Your task to perform on an android device: Open Amazon Image 0: 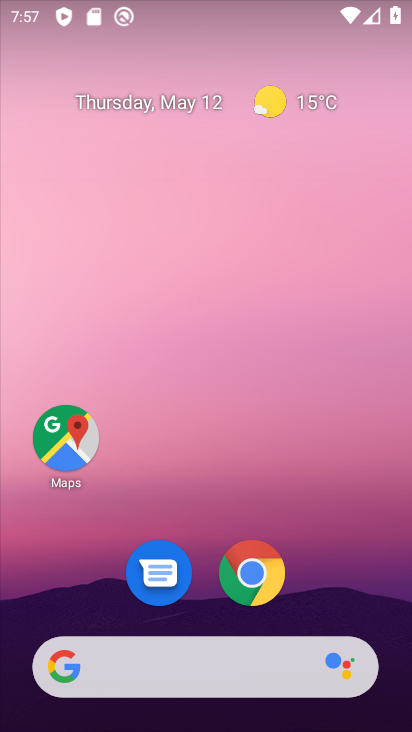
Step 0: click (253, 575)
Your task to perform on an android device: Open Amazon Image 1: 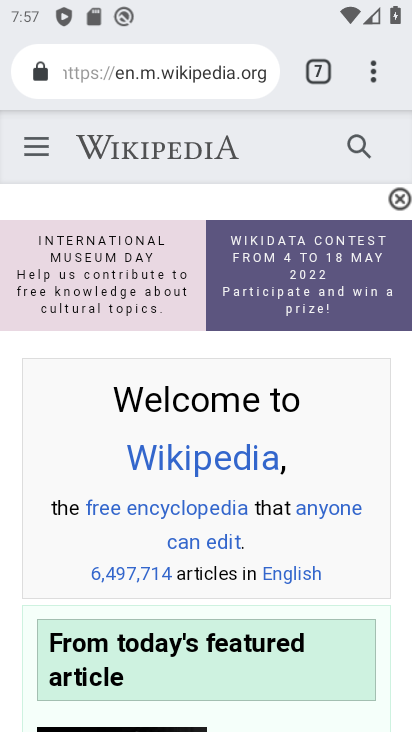
Step 1: click (375, 72)
Your task to perform on an android device: Open Amazon Image 2: 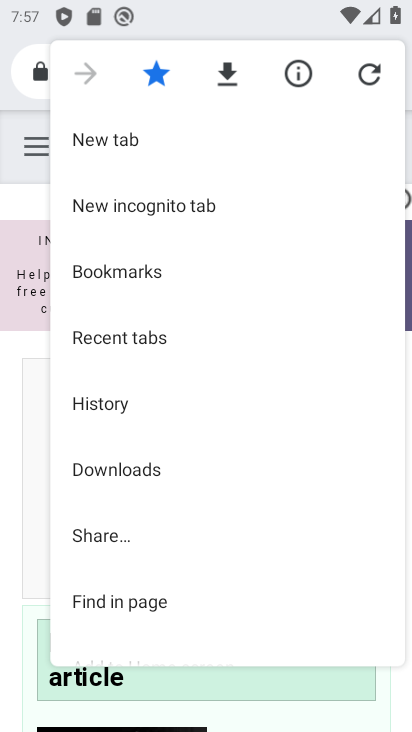
Step 2: click (115, 138)
Your task to perform on an android device: Open Amazon Image 3: 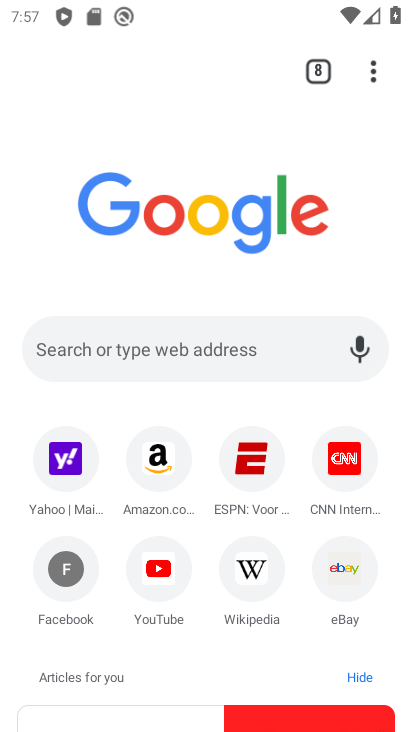
Step 3: click (149, 457)
Your task to perform on an android device: Open Amazon Image 4: 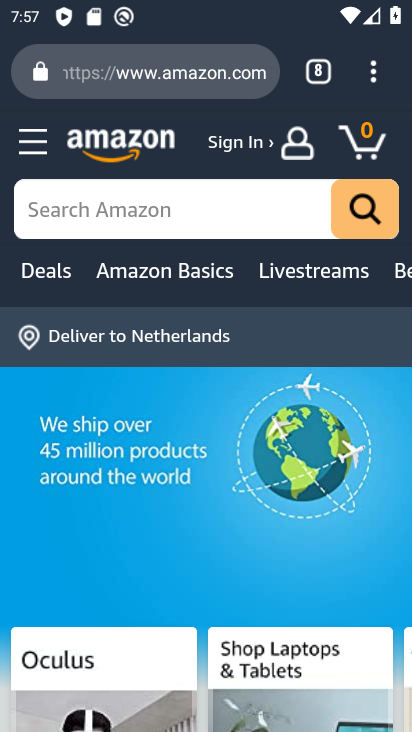
Step 4: task complete